Your task to perform on an android device: open the mobile data screen to see how much data has been used Image 0: 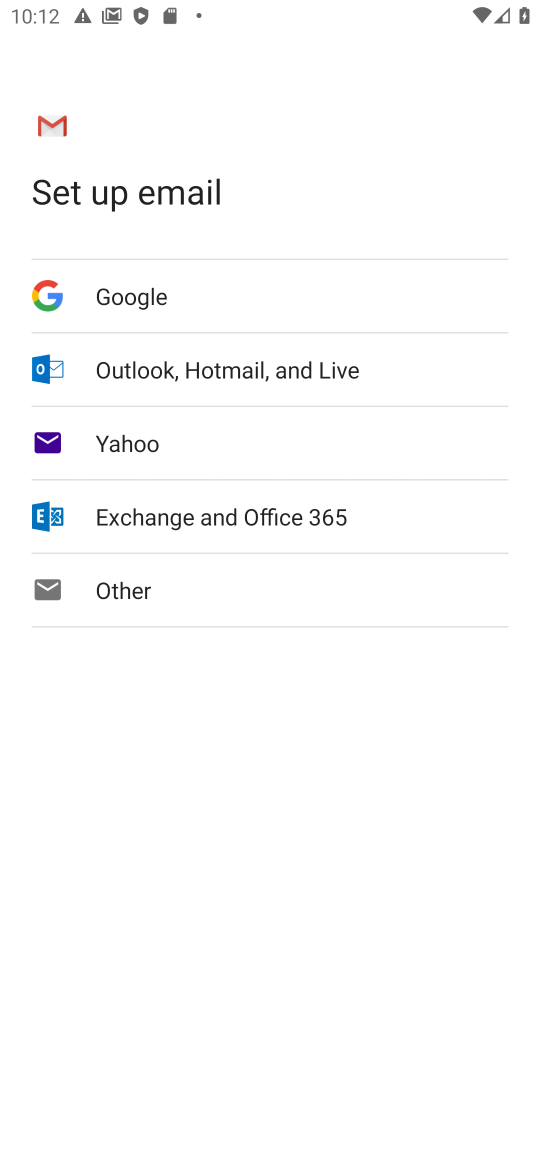
Step 0: press home button
Your task to perform on an android device: open the mobile data screen to see how much data has been used Image 1: 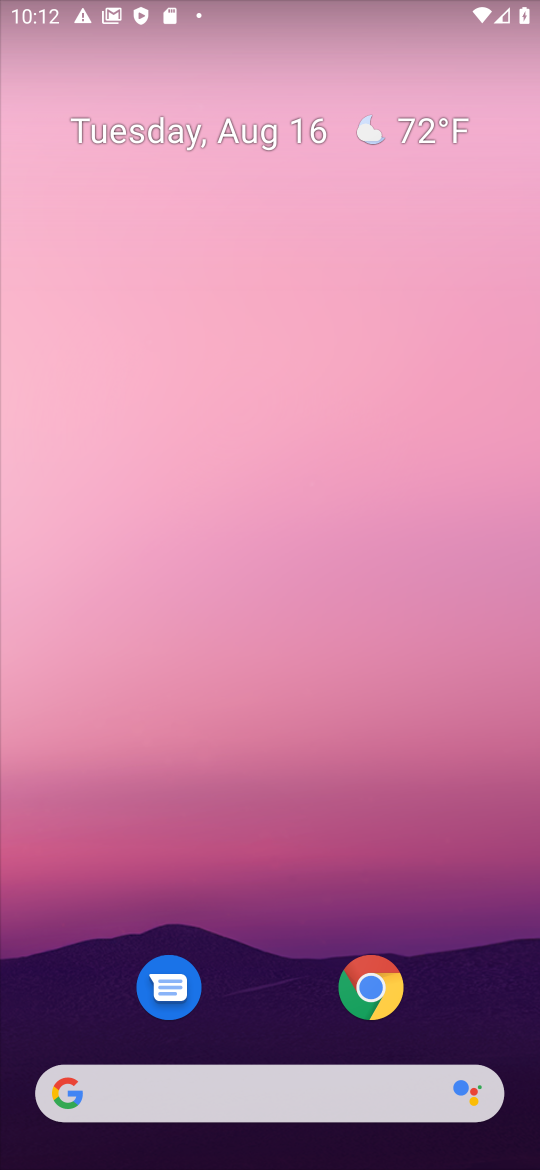
Step 1: drag from (30, 1107) to (192, 375)
Your task to perform on an android device: open the mobile data screen to see how much data has been used Image 2: 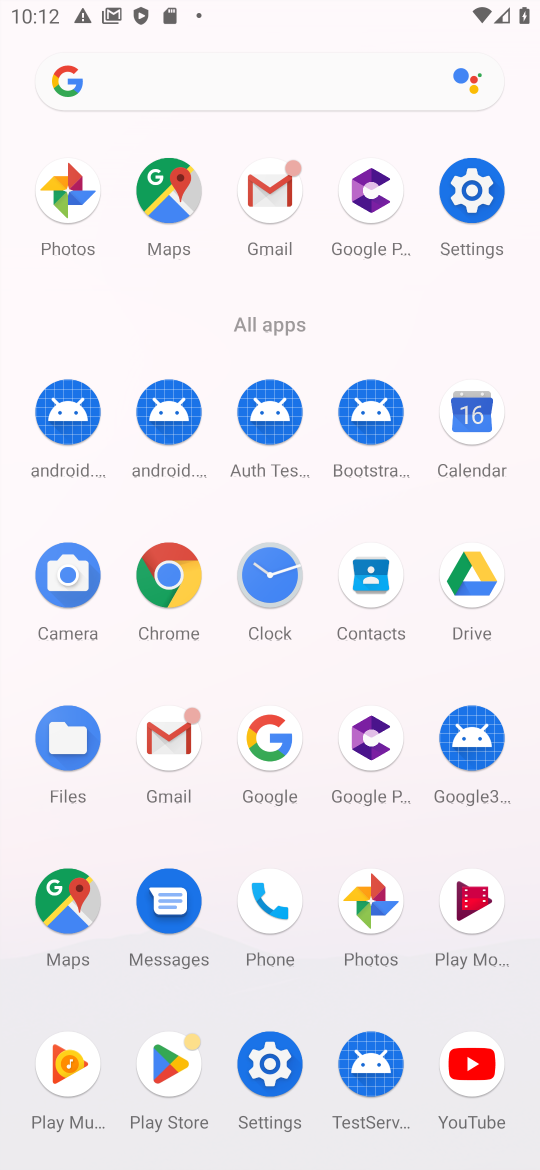
Step 2: click (257, 1046)
Your task to perform on an android device: open the mobile data screen to see how much data has been used Image 3: 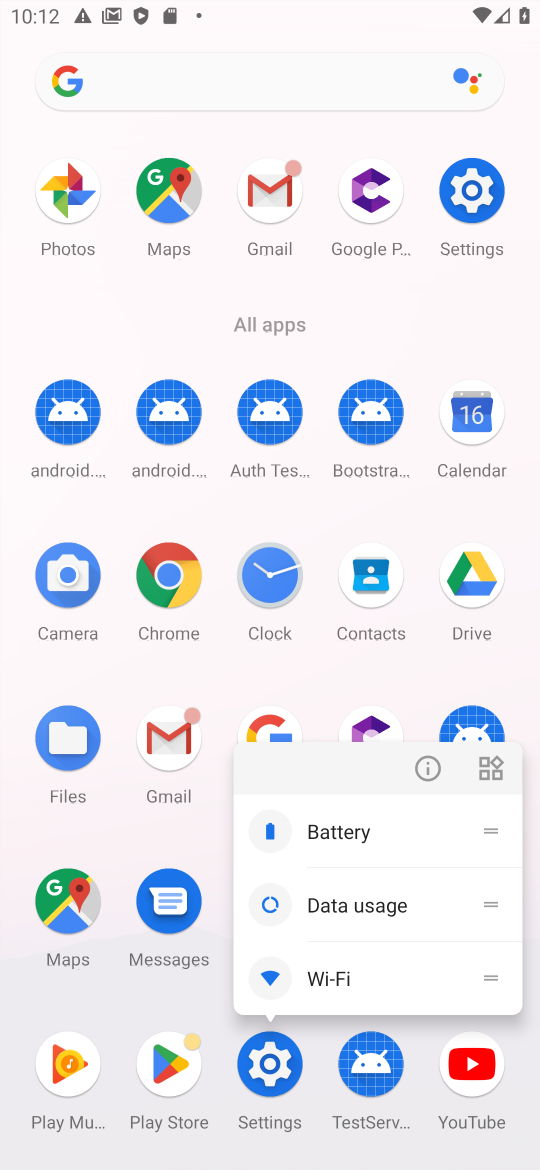
Step 3: click (263, 1081)
Your task to perform on an android device: open the mobile data screen to see how much data has been used Image 4: 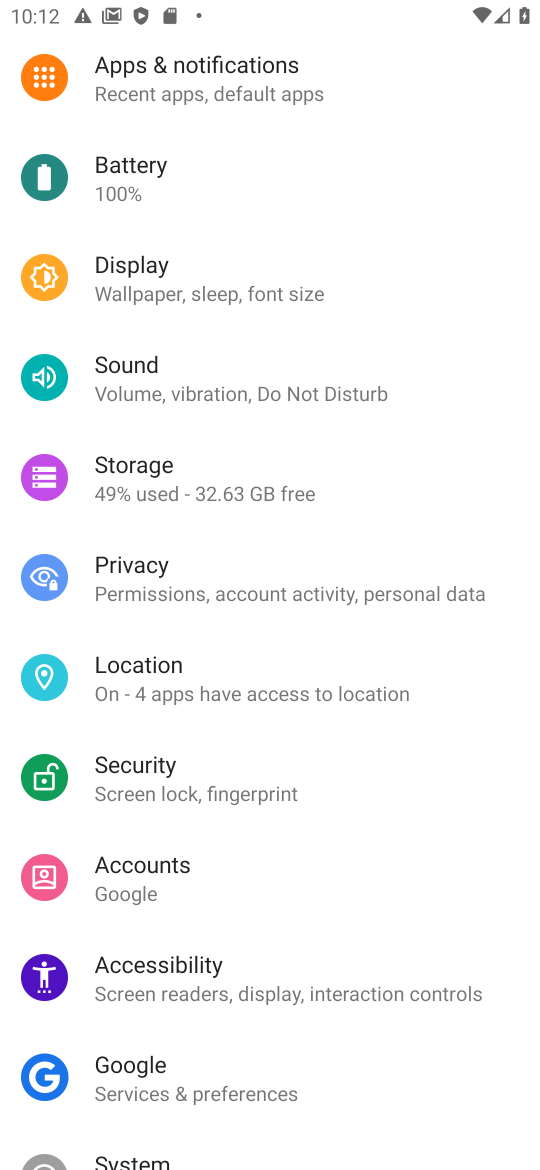
Step 4: drag from (368, 75) to (476, 748)
Your task to perform on an android device: open the mobile data screen to see how much data has been used Image 5: 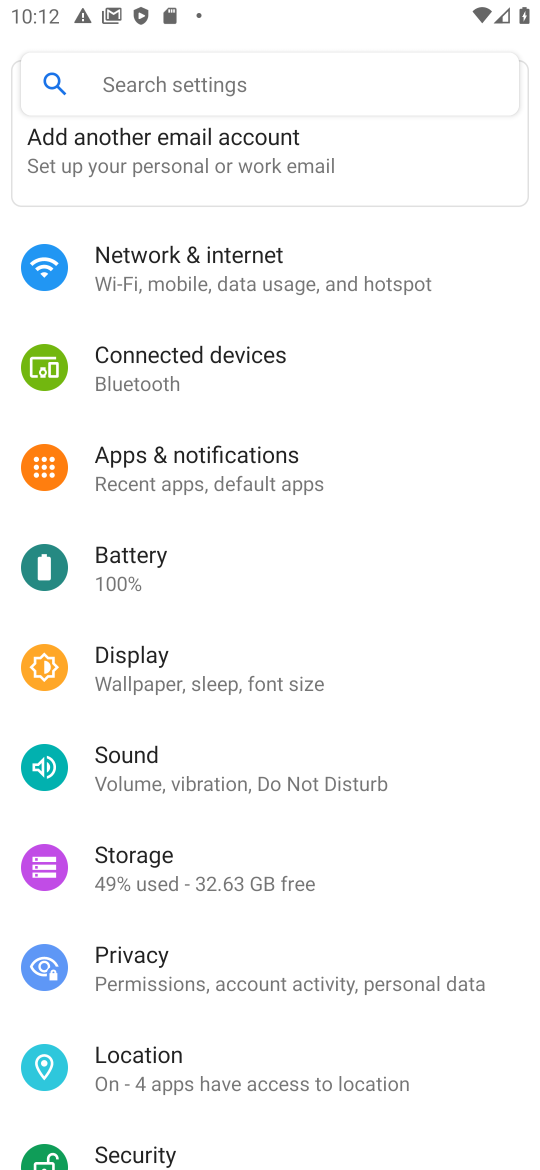
Step 5: click (148, 271)
Your task to perform on an android device: open the mobile data screen to see how much data has been used Image 6: 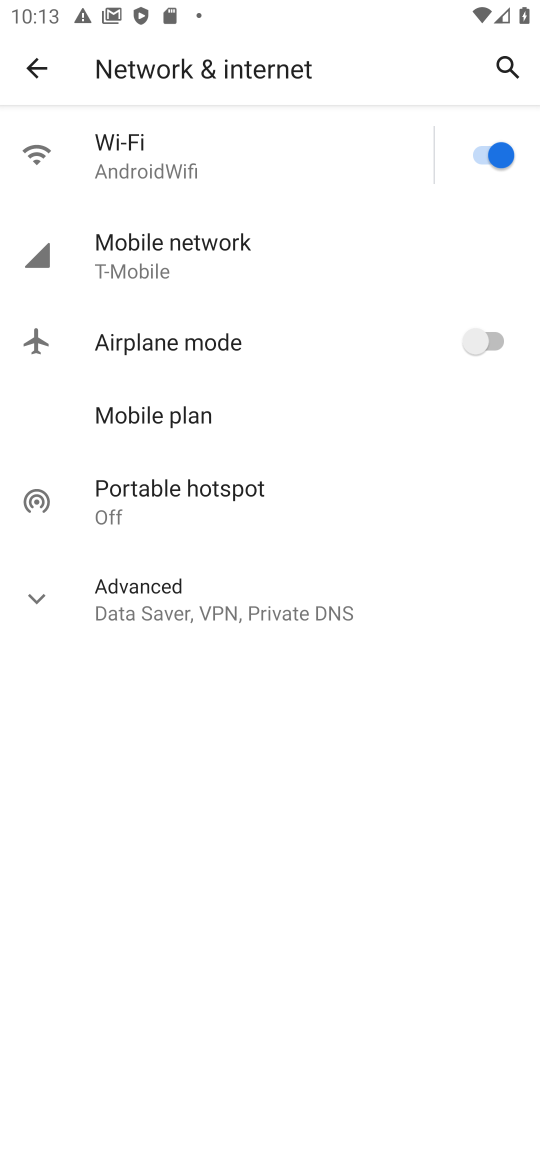
Step 6: click (192, 252)
Your task to perform on an android device: open the mobile data screen to see how much data has been used Image 7: 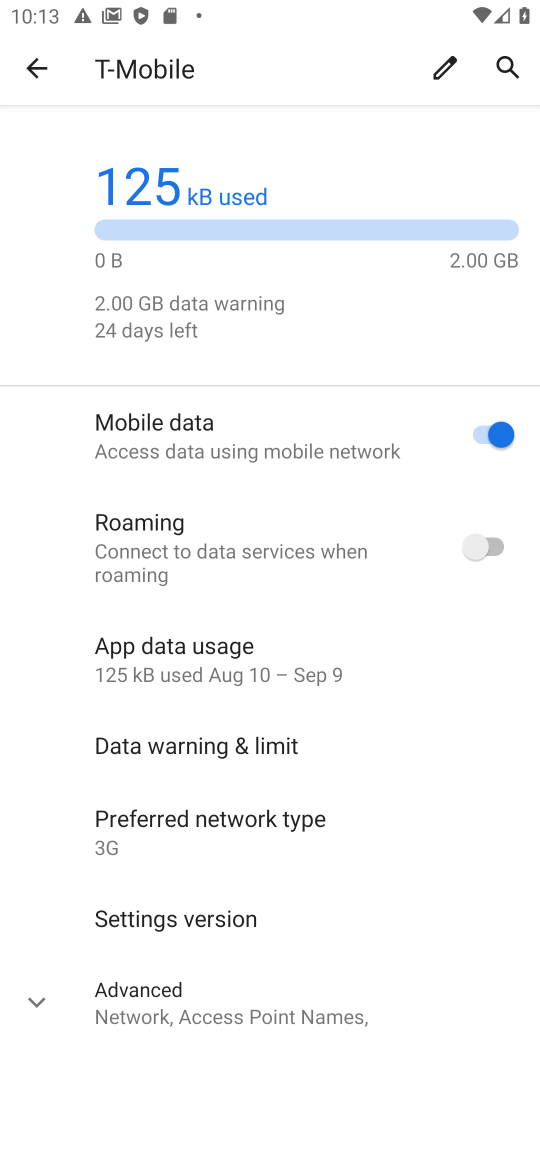
Step 7: task complete